Your task to perform on an android device: turn on bluetooth scan Image 0: 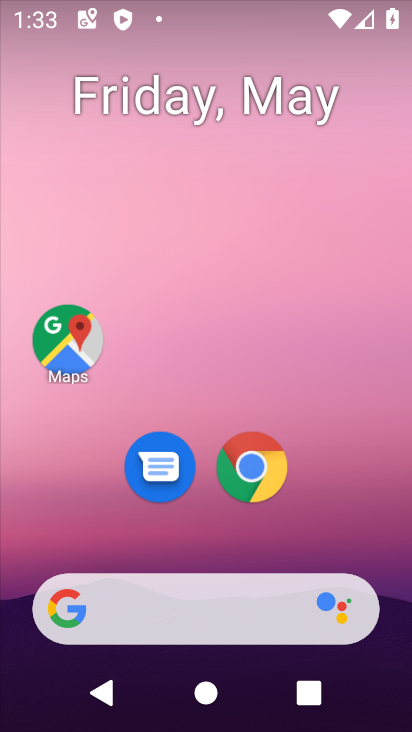
Step 0: drag from (365, 501) to (333, 111)
Your task to perform on an android device: turn on bluetooth scan Image 1: 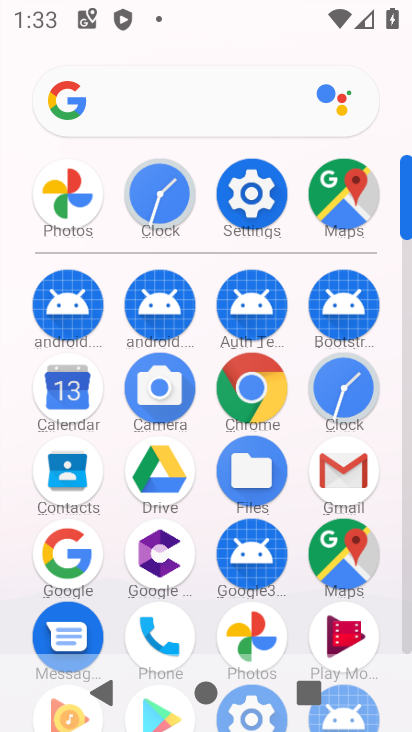
Step 1: click (259, 200)
Your task to perform on an android device: turn on bluetooth scan Image 2: 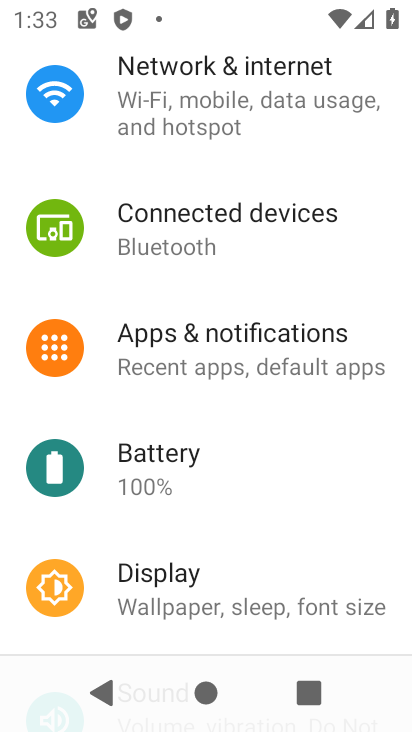
Step 2: drag from (149, 416) to (159, 147)
Your task to perform on an android device: turn on bluetooth scan Image 3: 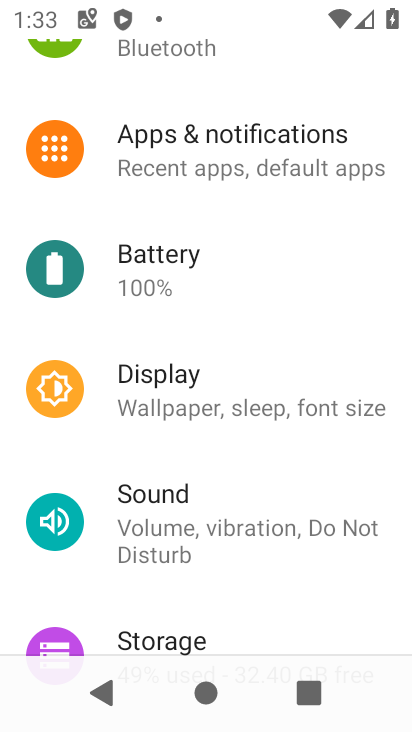
Step 3: drag from (177, 587) to (188, 119)
Your task to perform on an android device: turn on bluetooth scan Image 4: 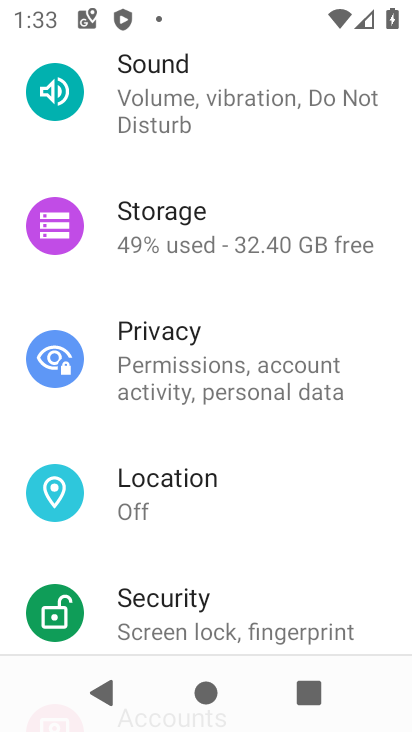
Step 4: click (159, 484)
Your task to perform on an android device: turn on bluetooth scan Image 5: 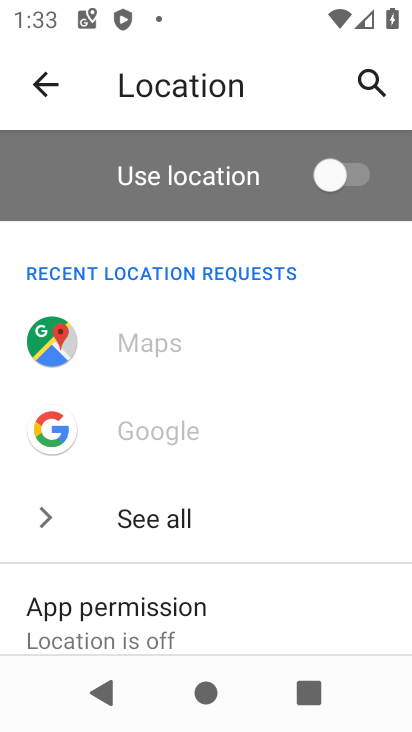
Step 5: drag from (272, 614) to (317, 289)
Your task to perform on an android device: turn on bluetooth scan Image 6: 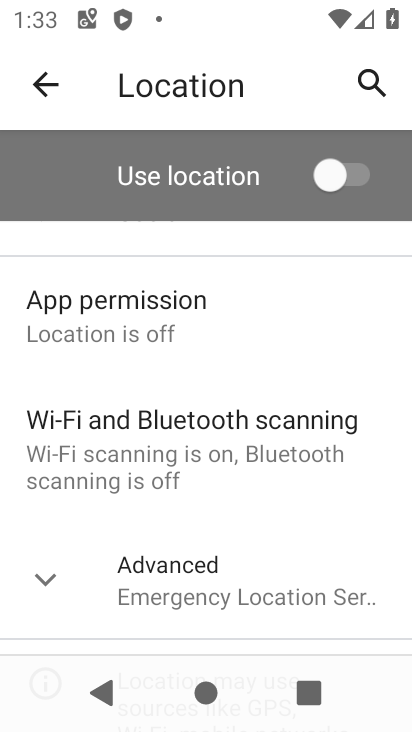
Step 6: click (182, 437)
Your task to perform on an android device: turn on bluetooth scan Image 7: 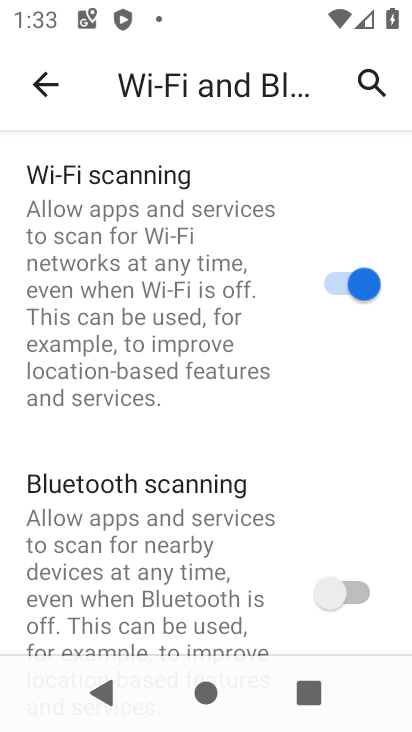
Step 7: click (350, 597)
Your task to perform on an android device: turn on bluetooth scan Image 8: 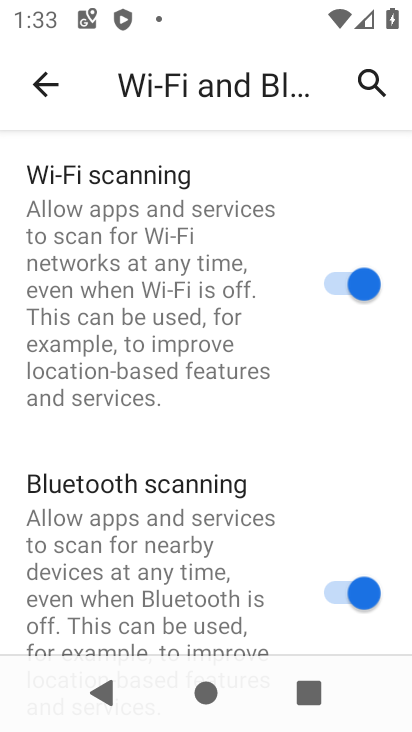
Step 8: task complete